Your task to perform on an android device: change the clock style Image 0: 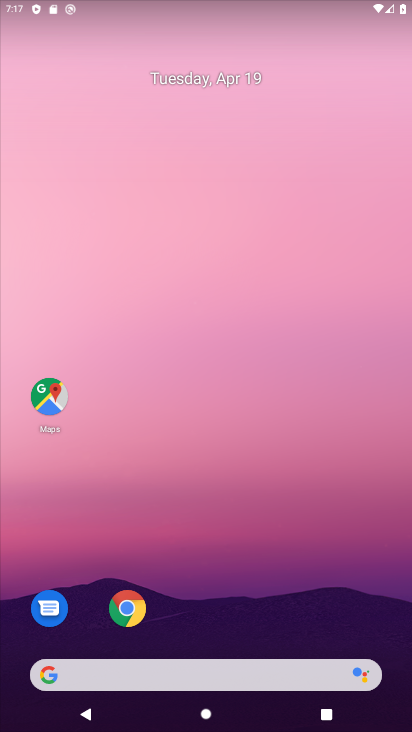
Step 0: drag from (297, 608) to (280, 133)
Your task to perform on an android device: change the clock style Image 1: 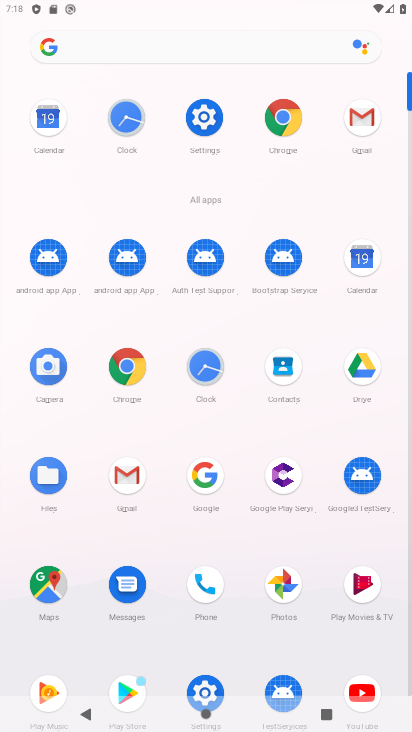
Step 1: click (200, 361)
Your task to perform on an android device: change the clock style Image 2: 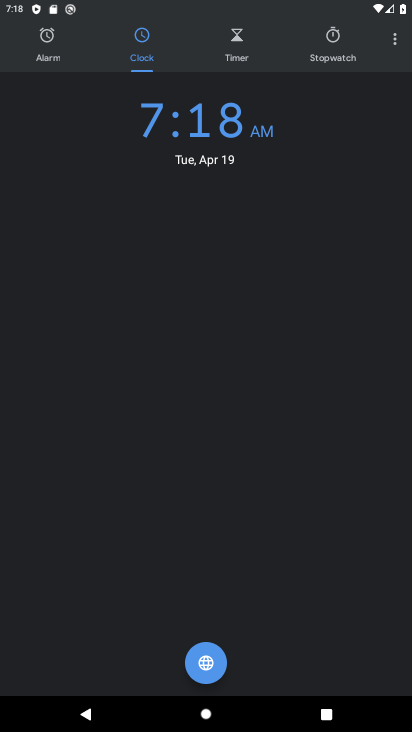
Step 2: click (388, 34)
Your task to perform on an android device: change the clock style Image 3: 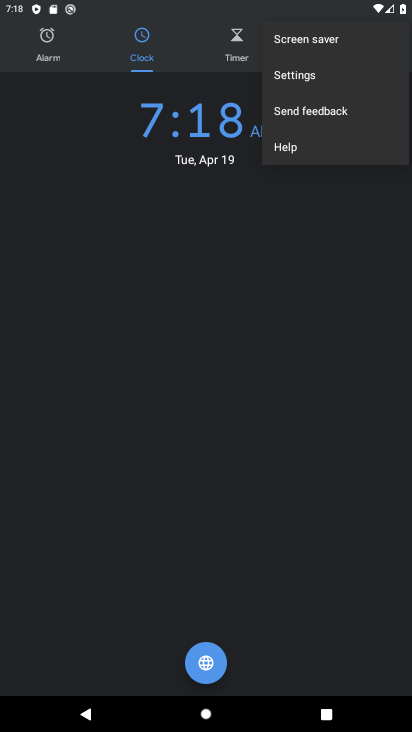
Step 3: click (290, 82)
Your task to perform on an android device: change the clock style Image 4: 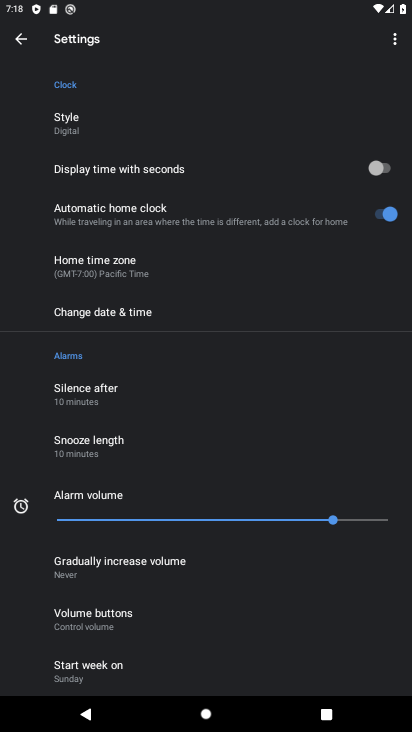
Step 4: click (68, 119)
Your task to perform on an android device: change the clock style Image 5: 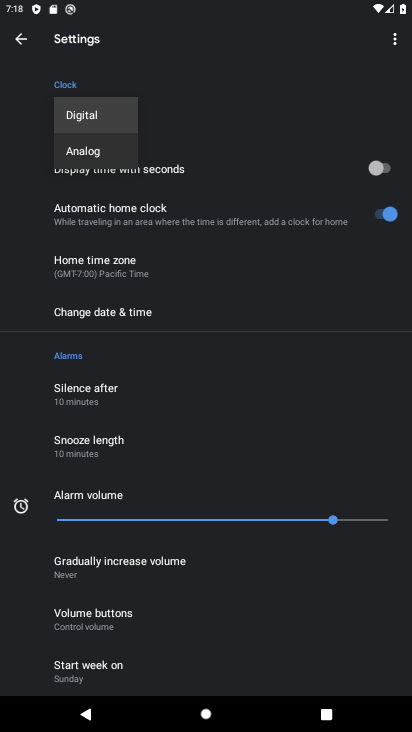
Step 5: click (103, 156)
Your task to perform on an android device: change the clock style Image 6: 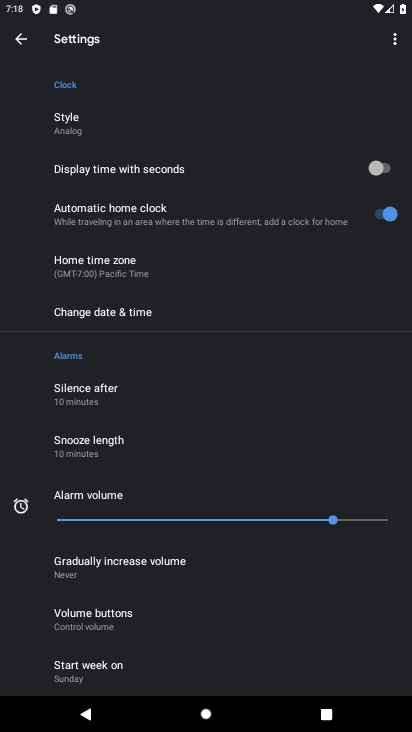
Step 6: task complete